Your task to perform on an android device: Search for Italian restaurants on Maps Image 0: 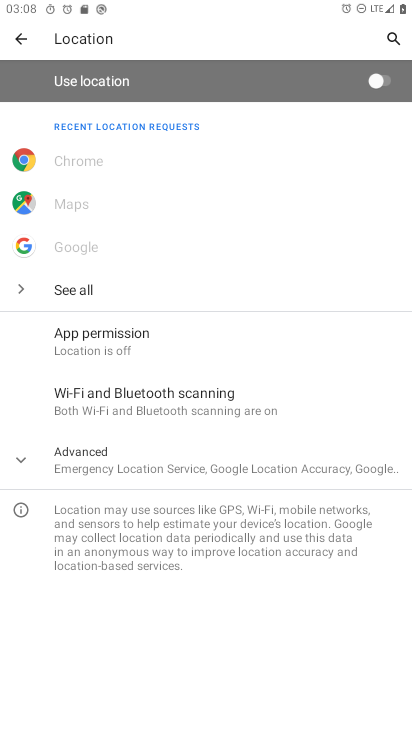
Step 0: press home button
Your task to perform on an android device: Search for Italian restaurants on Maps Image 1: 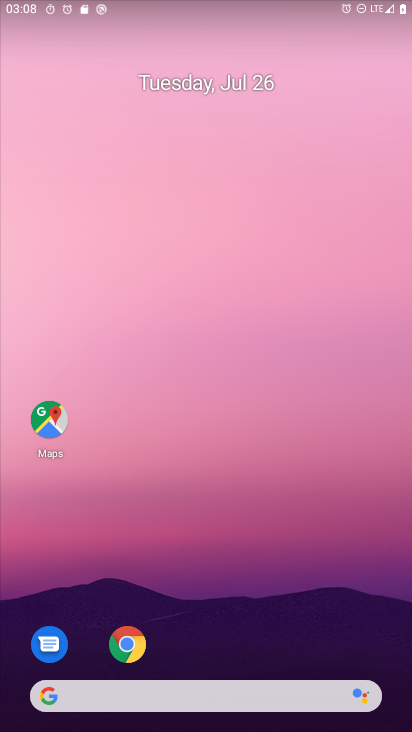
Step 1: click (35, 420)
Your task to perform on an android device: Search for Italian restaurants on Maps Image 2: 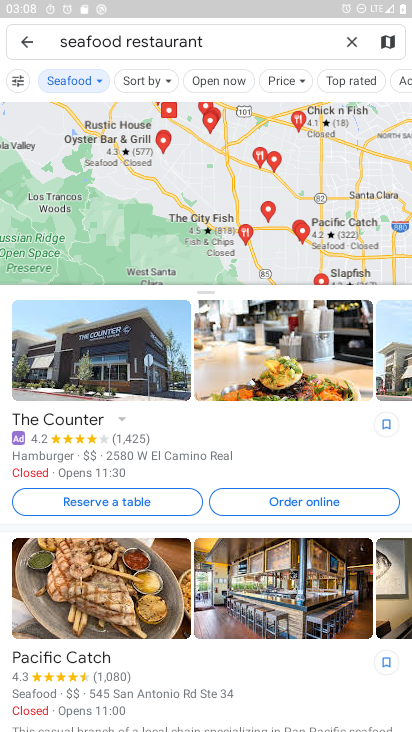
Step 2: click (350, 50)
Your task to perform on an android device: Search for Italian restaurants on Maps Image 3: 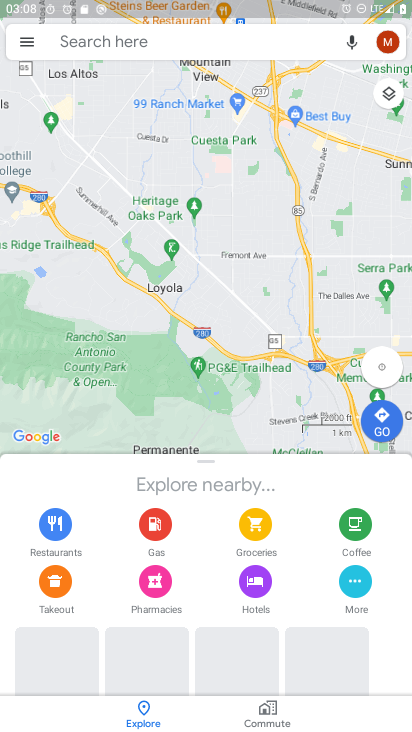
Step 3: click (226, 41)
Your task to perform on an android device: Search for Italian restaurants on Maps Image 4: 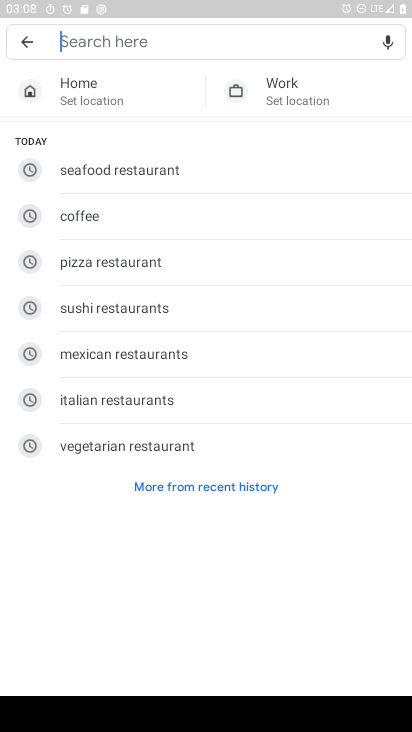
Step 4: type " Italian restaurants"
Your task to perform on an android device: Search for Italian restaurants on Maps Image 5: 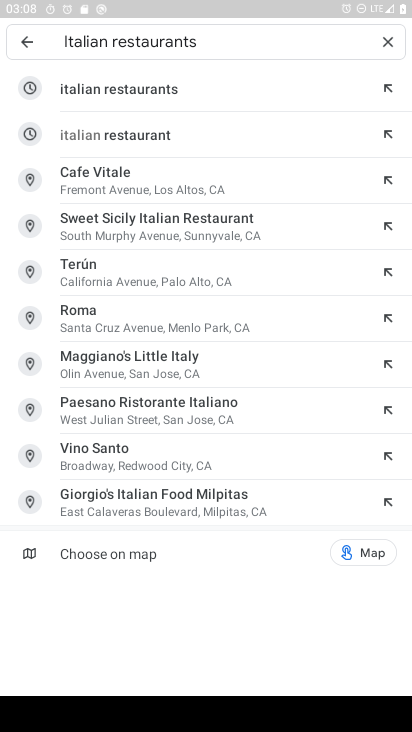
Step 5: click (90, 102)
Your task to perform on an android device: Search for Italian restaurants on Maps Image 6: 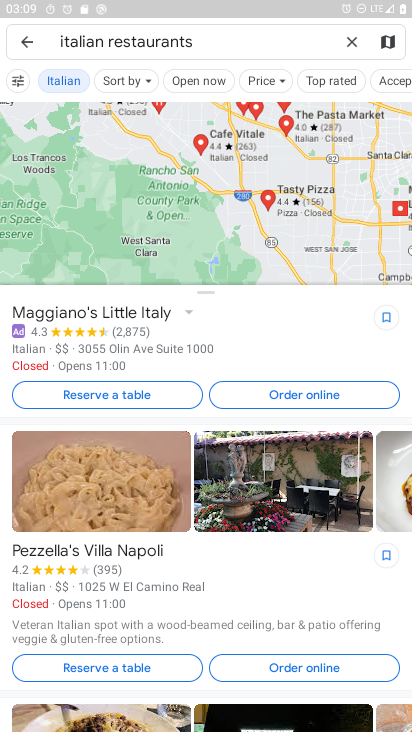
Step 6: task complete